Your task to perform on an android device: all mails in gmail Image 0: 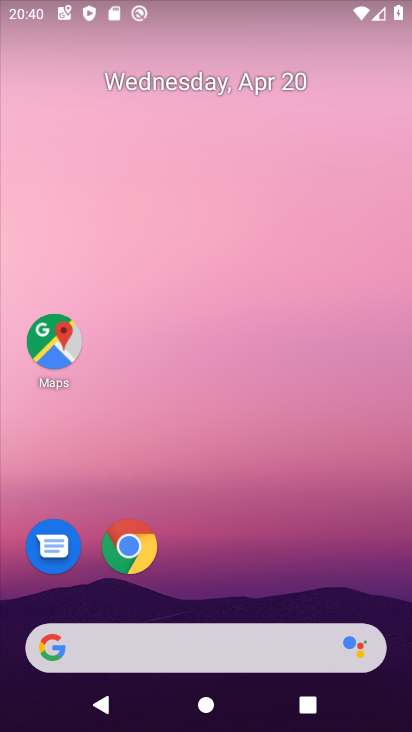
Step 0: drag from (263, 586) to (280, 66)
Your task to perform on an android device: all mails in gmail Image 1: 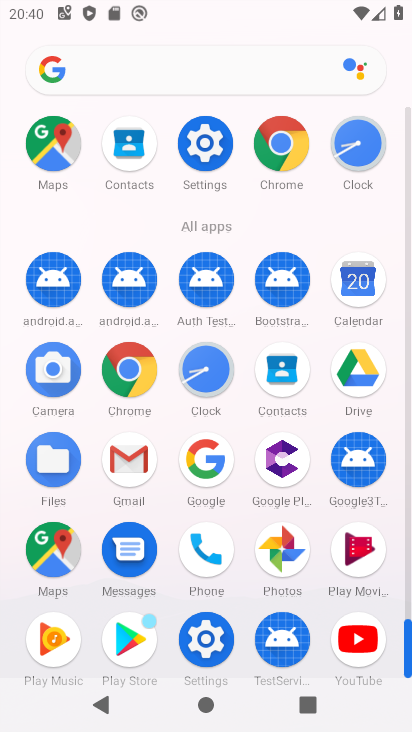
Step 1: click (125, 464)
Your task to perform on an android device: all mails in gmail Image 2: 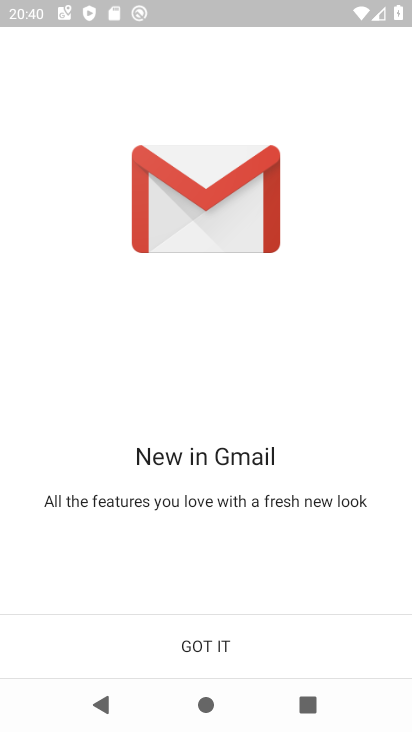
Step 2: click (213, 631)
Your task to perform on an android device: all mails in gmail Image 3: 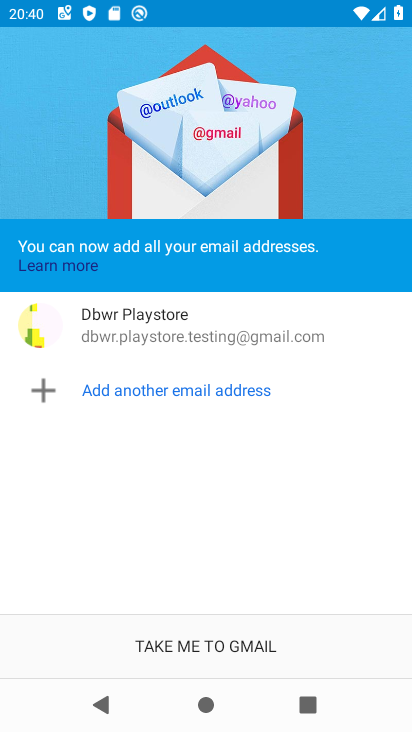
Step 3: click (182, 639)
Your task to perform on an android device: all mails in gmail Image 4: 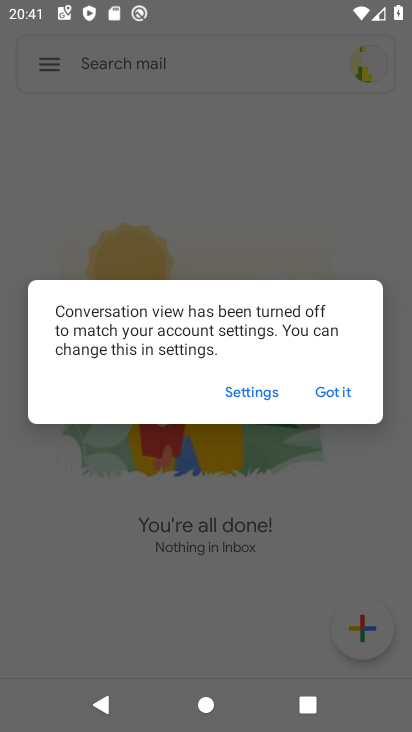
Step 4: click (323, 384)
Your task to perform on an android device: all mails in gmail Image 5: 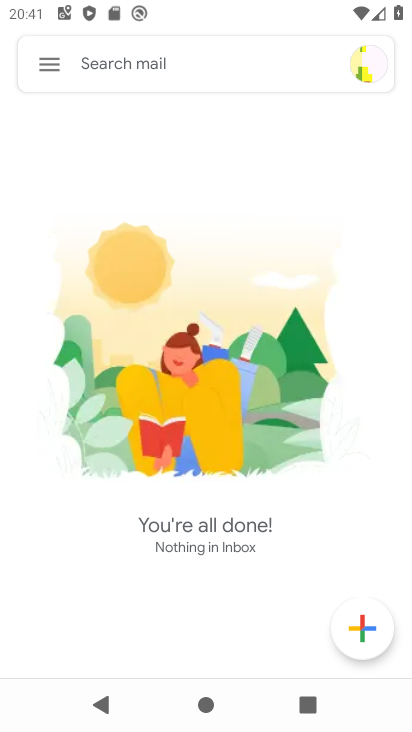
Step 5: click (40, 70)
Your task to perform on an android device: all mails in gmail Image 6: 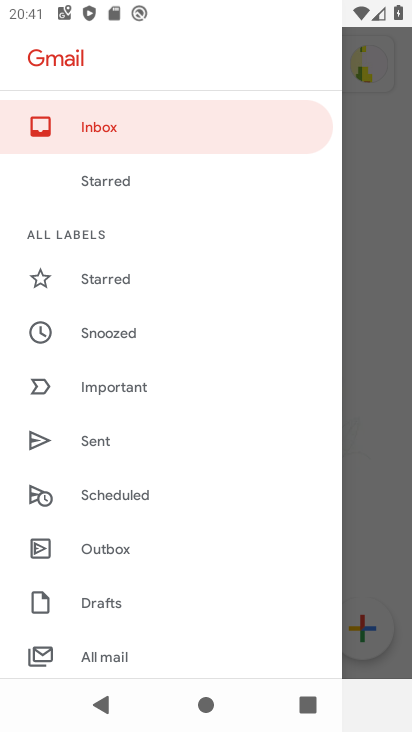
Step 6: click (151, 657)
Your task to perform on an android device: all mails in gmail Image 7: 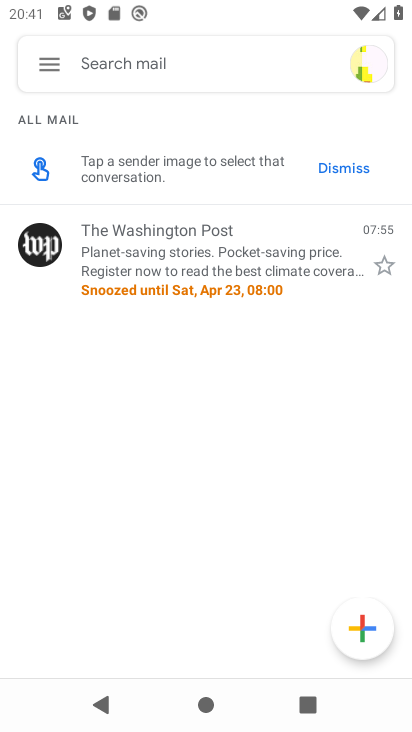
Step 7: task complete